Your task to perform on an android device: turn on wifi Image 0: 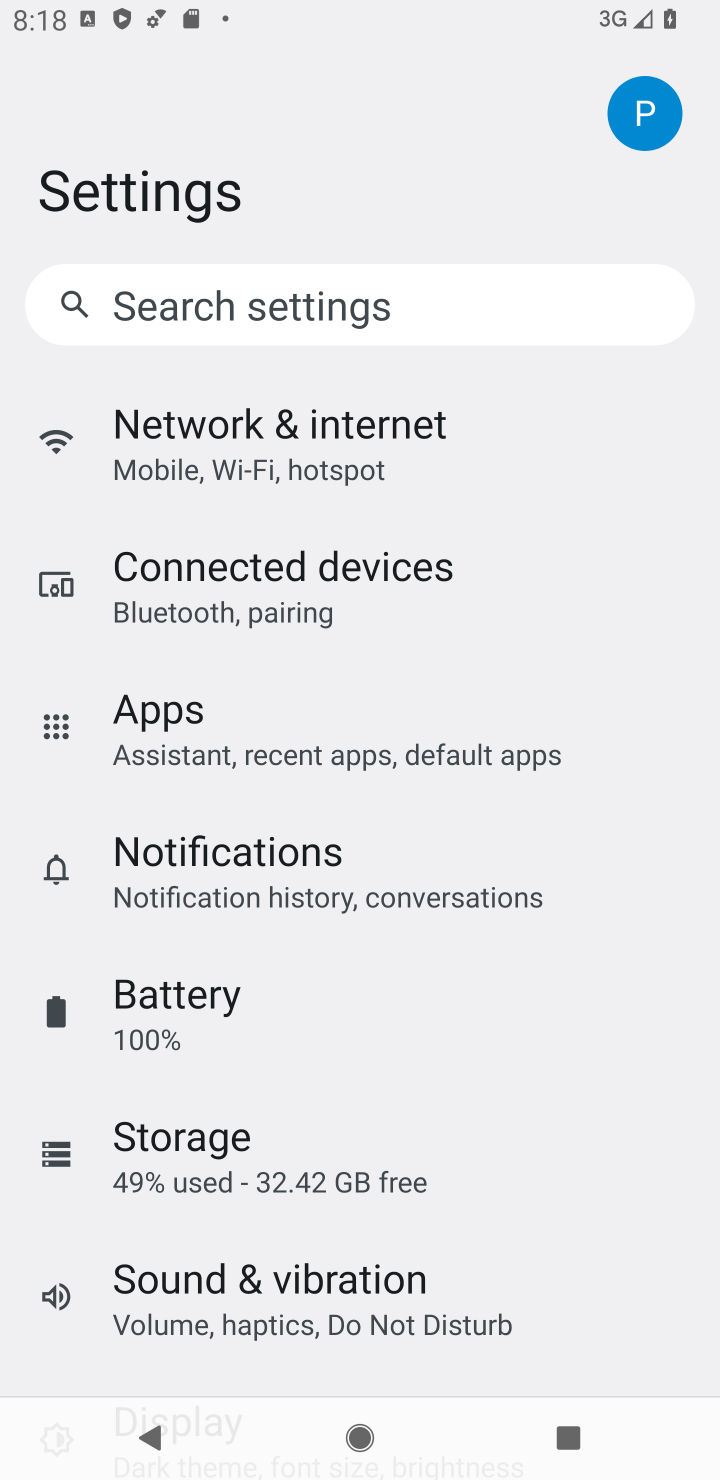
Step 0: click (196, 437)
Your task to perform on an android device: turn on wifi Image 1: 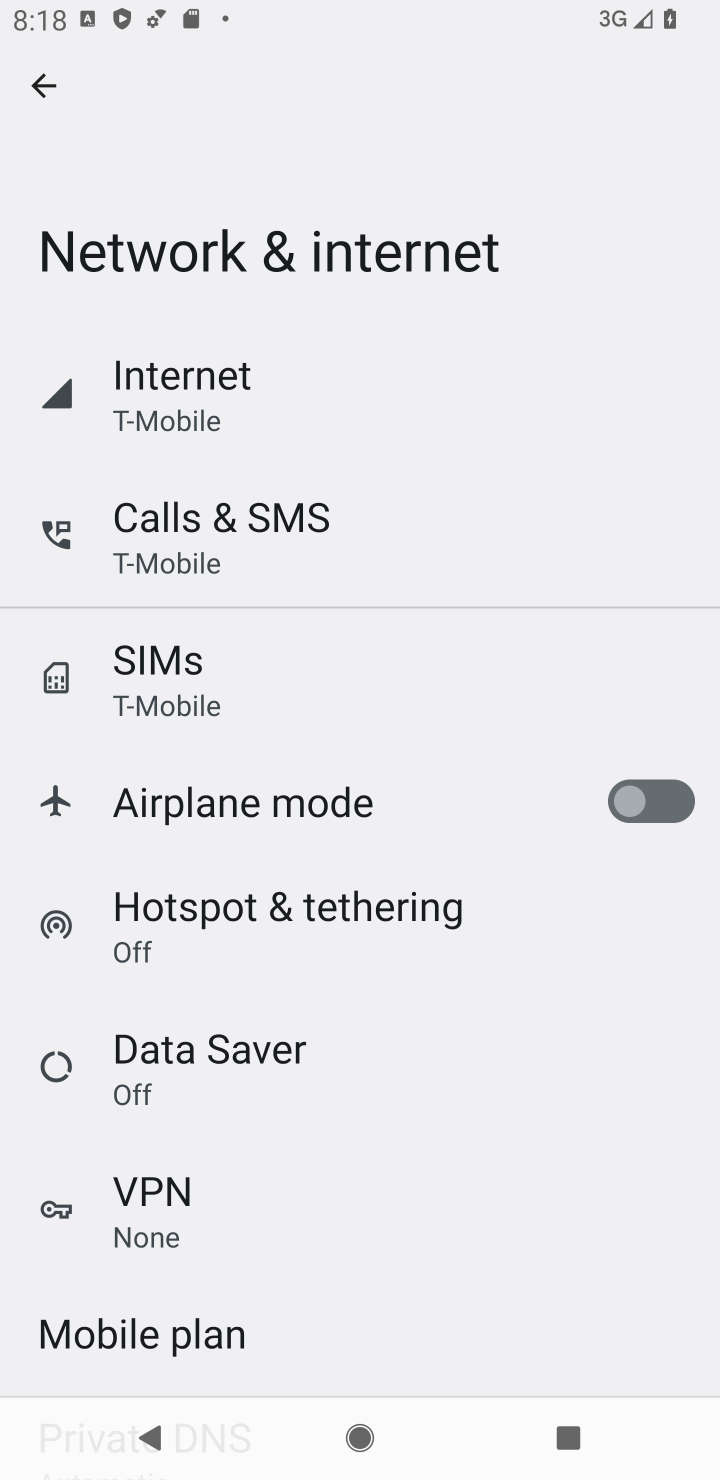
Step 1: click (184, 385)
Your task to perform on an android device: turn on wifi Image 2: 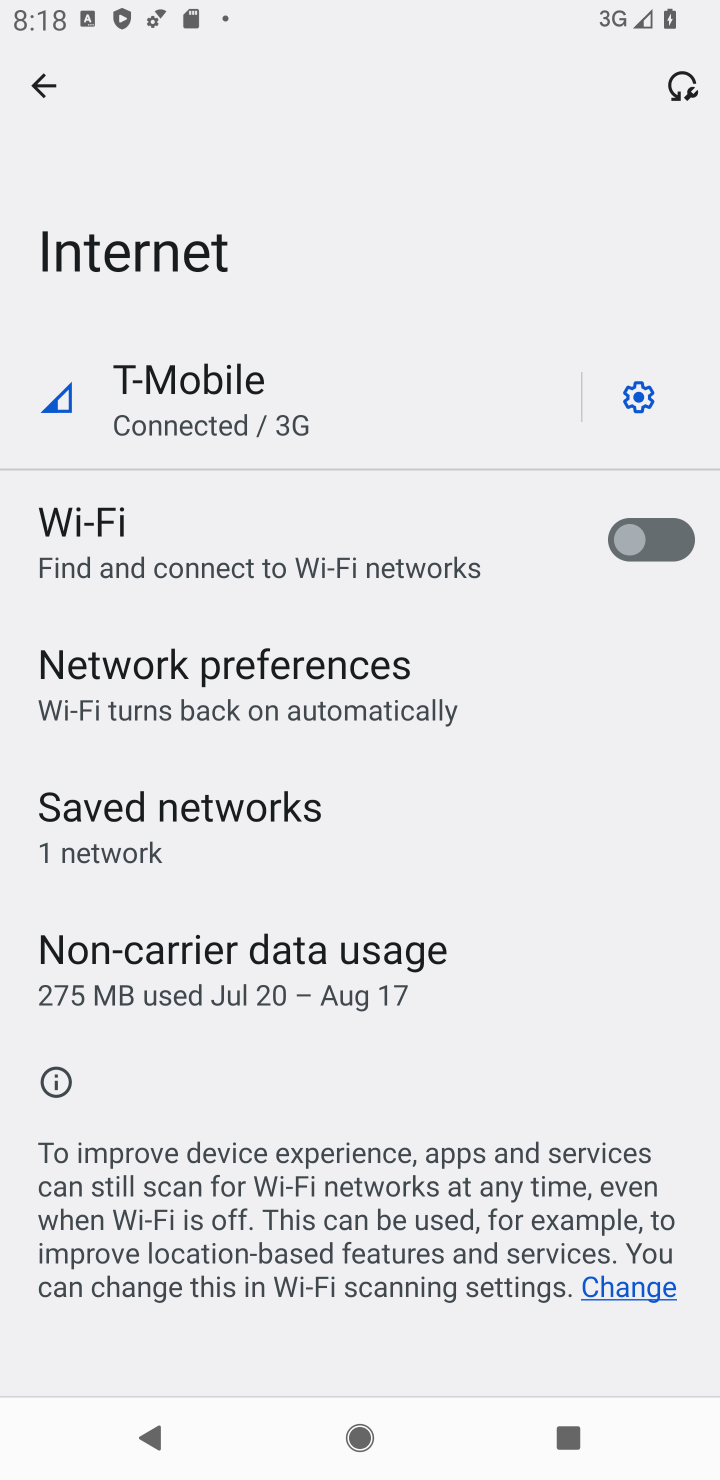
Step 2: click (691, 535)
Your task to perform on an android device: turn on wifi Image 3: 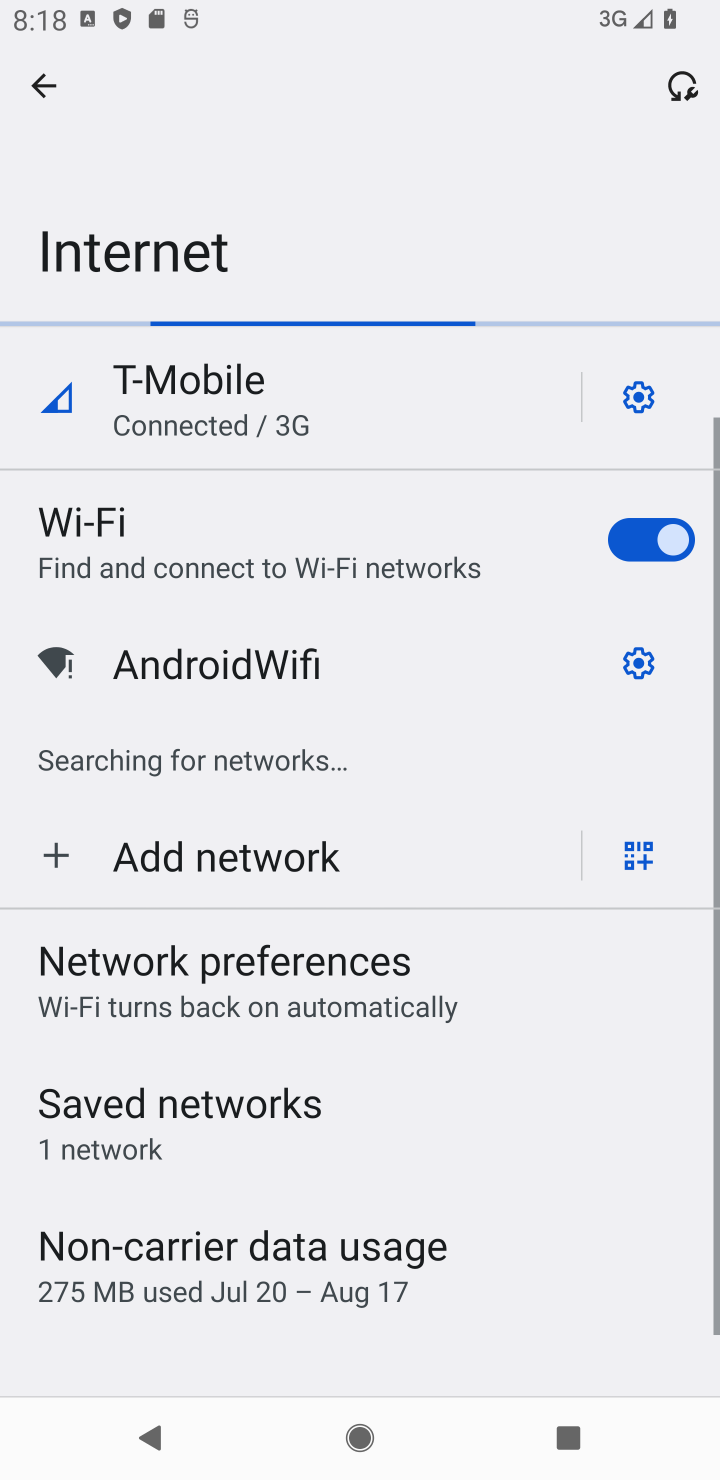
Step 3: task complete